Your task to perform on an android device: add a label to a message in the gmail app Image 0: 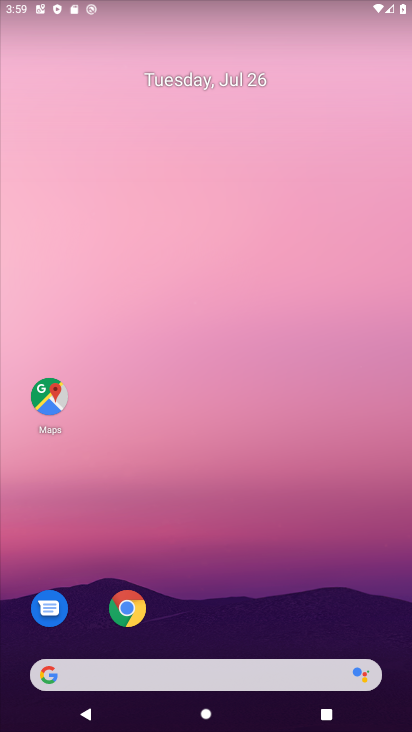
Step 0: drag from (203, 653) to (235, 122)
Your task to perform on an android device: add a label to a message in the gmail app Image 1: 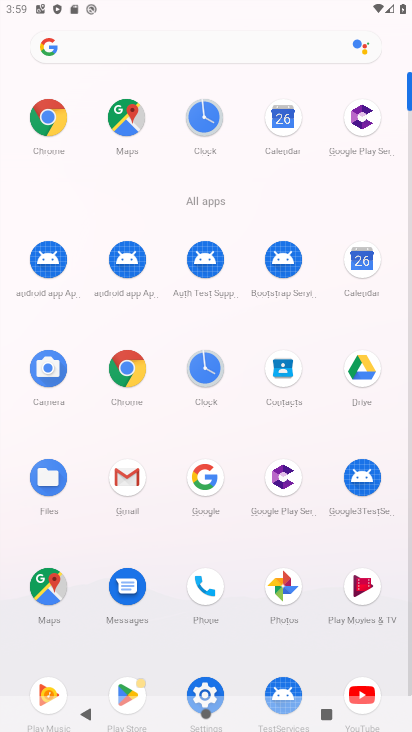
Step 1: click (128, 479)
Your task to perform on an android device: add a label to a message in the gmail app Image 2: 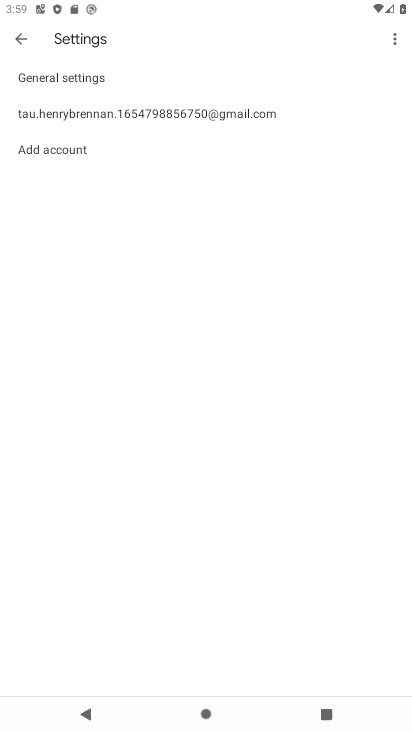
Step 2: click (22, 40)
Your task to perform on an android device: add a label to a message in the gmail app Image 3: 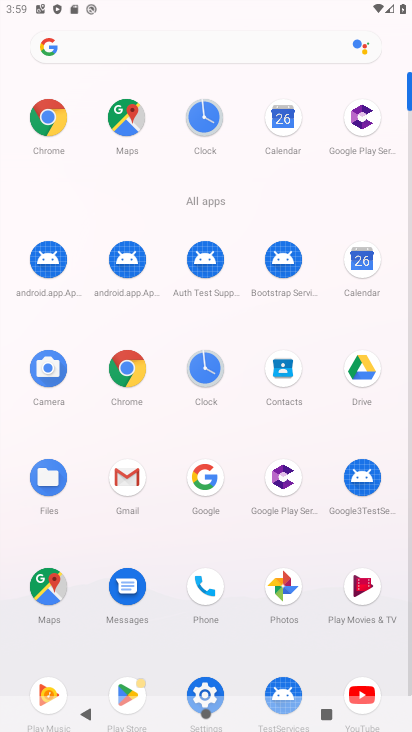
Step 3: click (122, 484)
Your task to perform on an android device: add a label to a message in the gmail app Image 4: 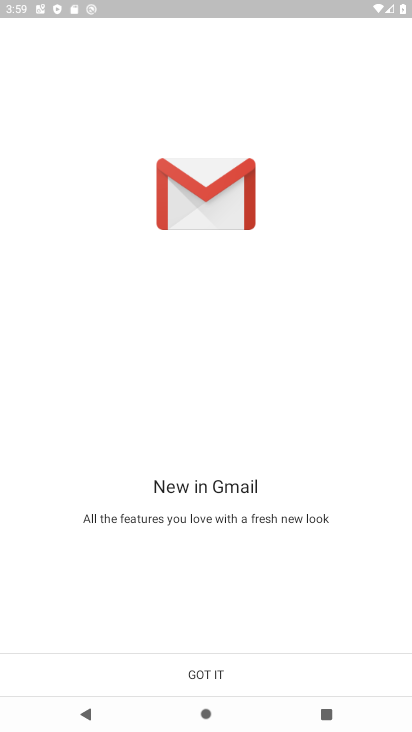
Step 4: click (226, 676)
Your task to perform on an android device: add a label to a message in the gmail app Image 5: 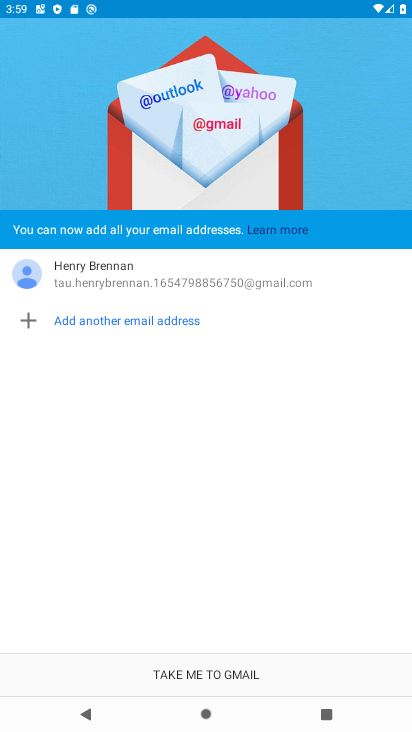
Step 5: click (226, 676)
Your task to perform on an android device: add a label to a message in the gmail app Image 6: 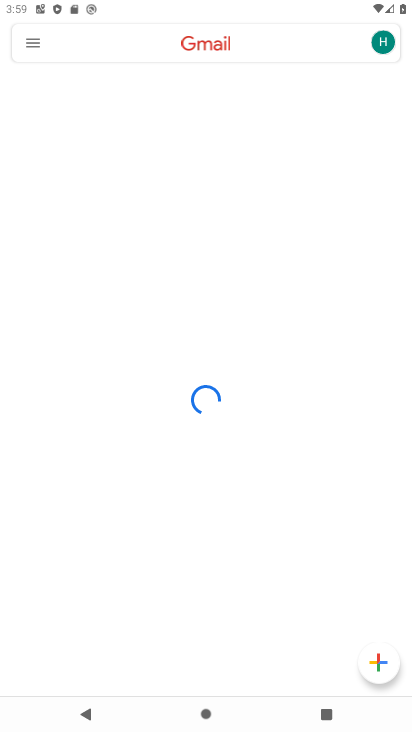
Step 6: click (23, 46)
Your task to perform on an android device: add a label to a message in the gmail app Image 7: 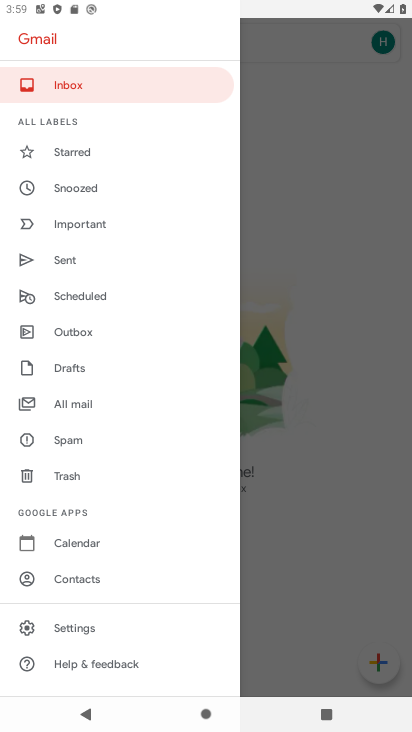
Step 7: click (89, 200)
Your task to perform on an android device: add a label to a message in the gmail app Image 8: 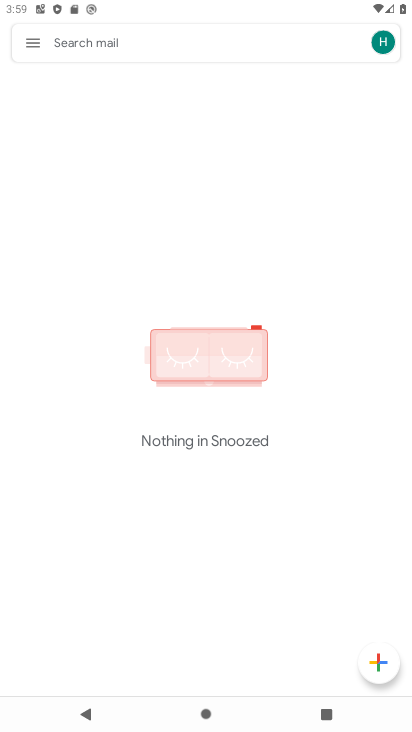
Step 8: task complete